Your task to perform on an android device: add a contact in the contacts app Image 0: 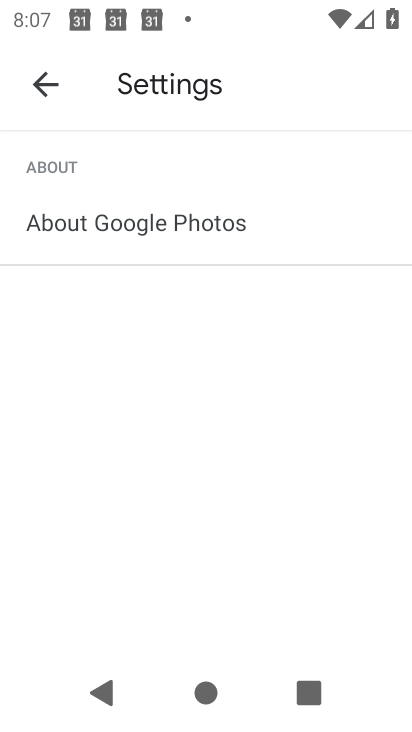
Step 0: press home button
Your task to perform on an android device: add a contact in the contacts app Image 1: 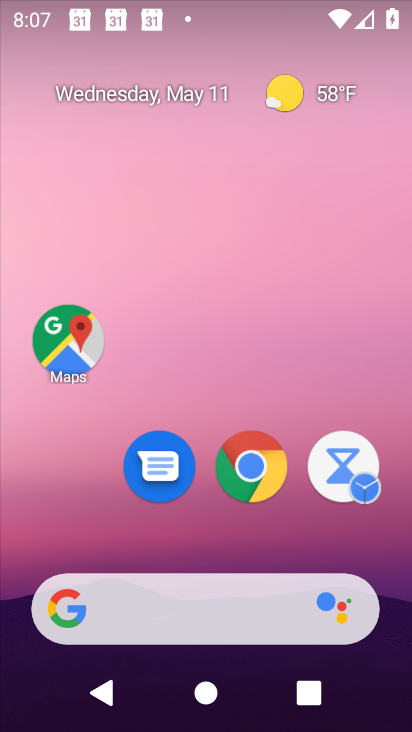
Step 1: drag from (201, 536) to (253, 89)
Your task to perform on an android device: add a contact in the contacts app Image 2: 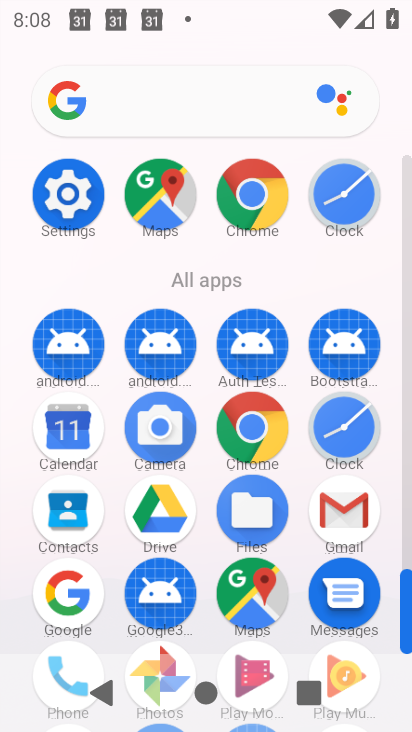
Step 2: click (59, 499)
Your task to perform on an android device: add a contact in the contacts app Image 3: 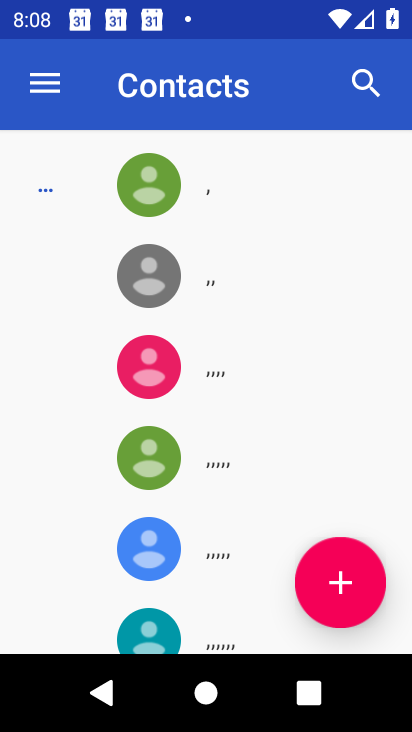
Step 3: click (325, 587)
Your task to perform on an android device: add a contact in the contacts app Image 4: 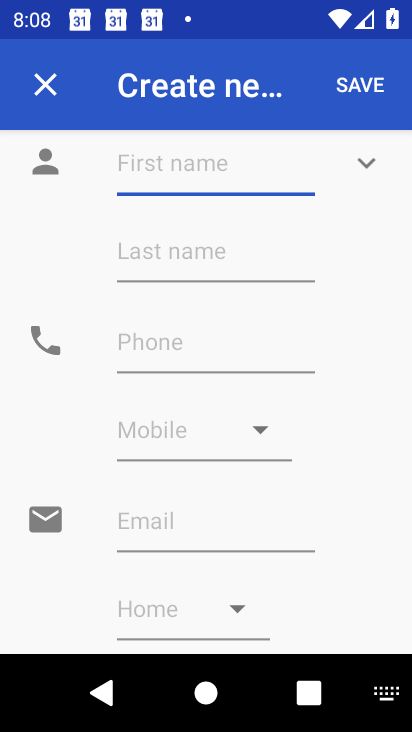
Step 4: type "zdrfvgyhnjikm"
Your task to perform on an android device: add a contact in the contacts app Image 5: 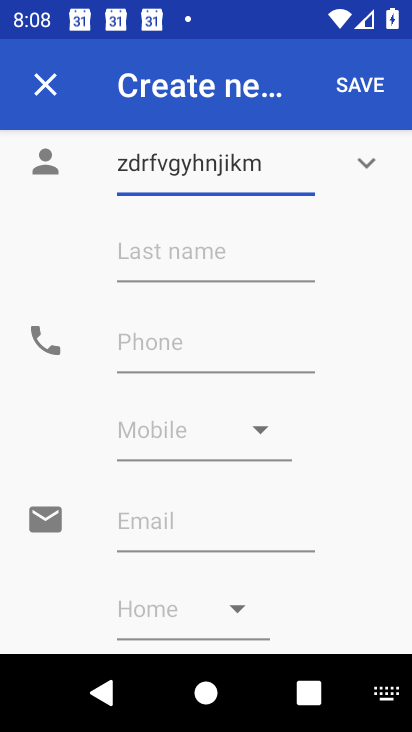
Step 5: click (210, 358)
Your task to perform on an android device: add a contact in the contacts app Image 6: 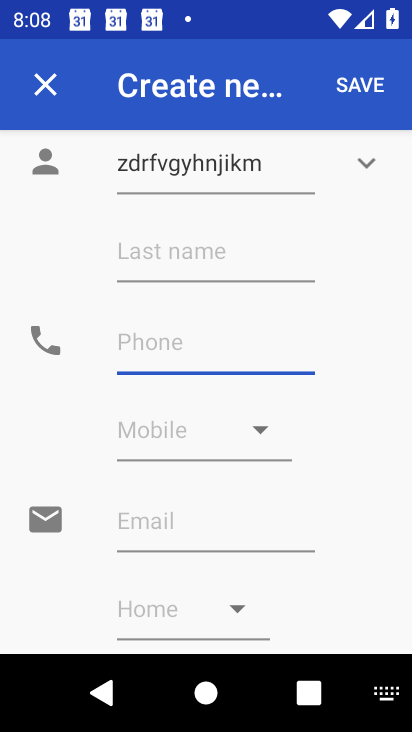
Step 6: type "6753321789"
Your task to perform on an android device: add a contact in the contacts app Image 7: 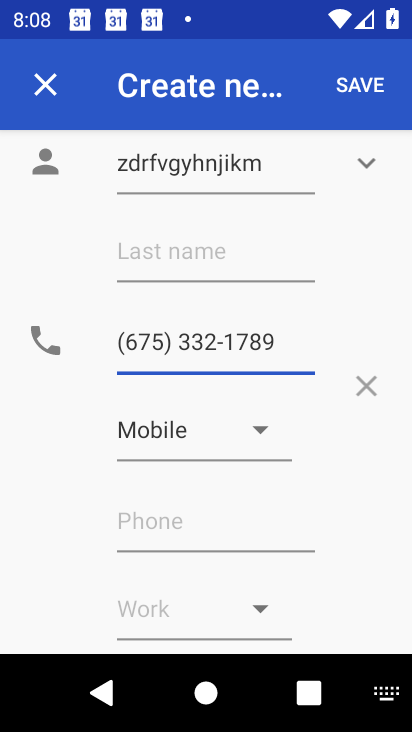
Step 7: click (375, 70)
Your task to perform on an android device: add a contact in the contacts app Image 8: 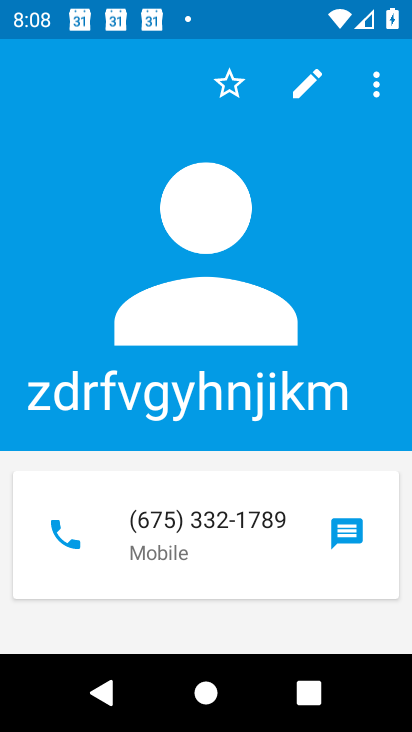
Step 8: task complete